Your task to perform on an android device: Open sound settings Image 0: 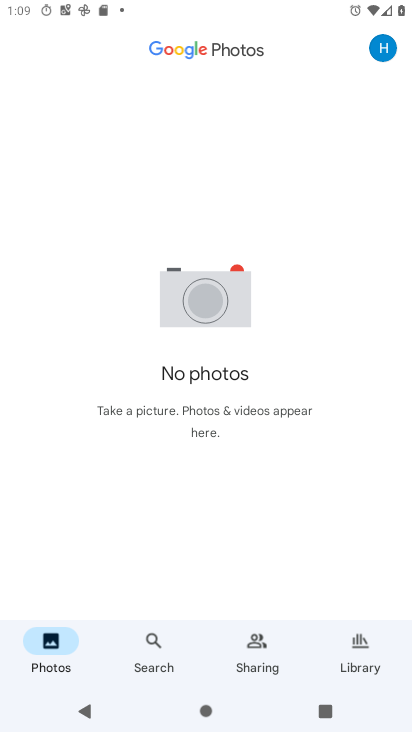
Step 0: press home button
Your task to perform on an android device: Open sound settings Image 1: 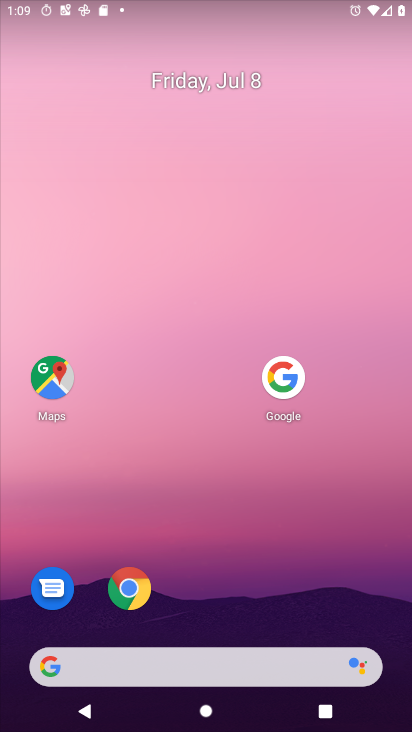
Step 1: drag from (171, 651) to (212, 58)
Your task to perform on an android device: Open sound settings Image 2: 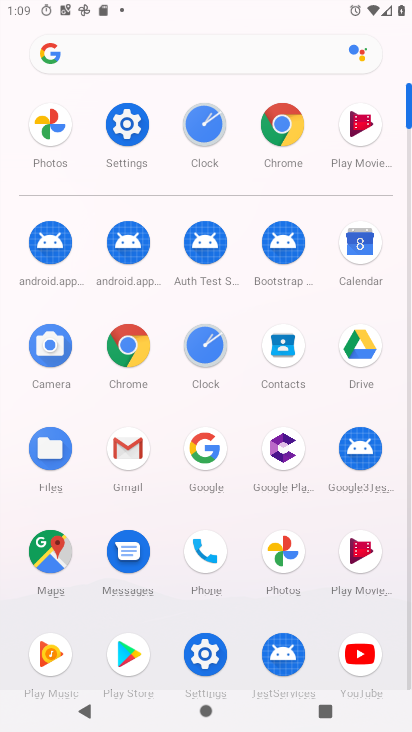
Step 2: click (127, 135)
Your task to perform on an android device: Open sound settings Image 3: 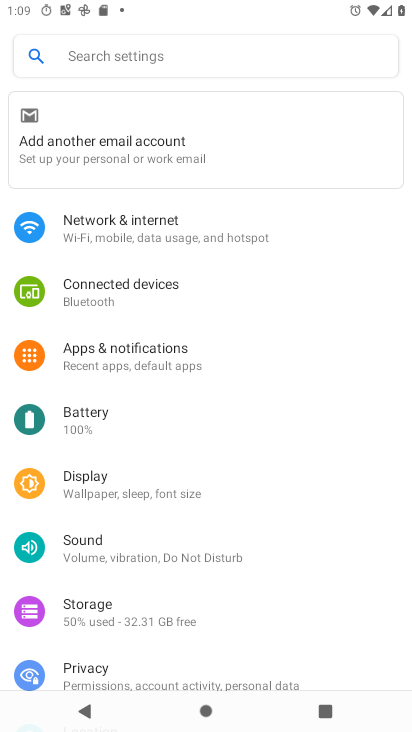
Step 3: click (113, 552)
Your task to perform on an android device: Open sound settings Image 4: 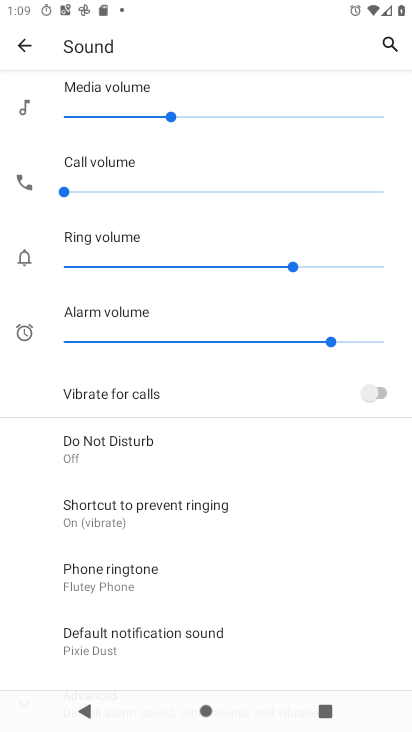
Step 4: task complete